Your task to perform on an android device: toggle data saver in the chrome app Image 0: 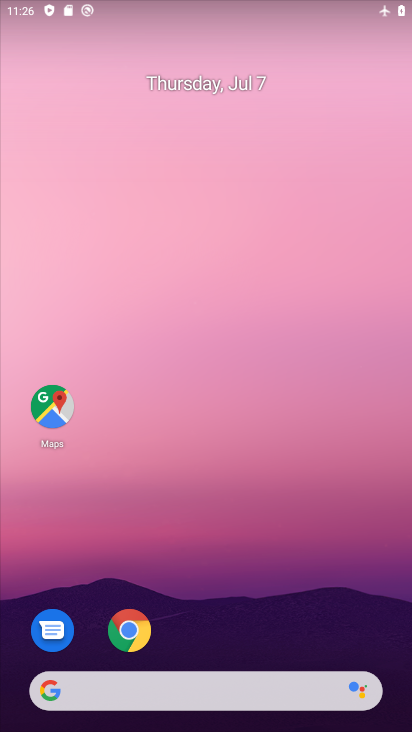
Step 0: drag from (385, 672) to (220, 10)
Your task to perform on an android device: toggle data saver in the chrome app Image 1: 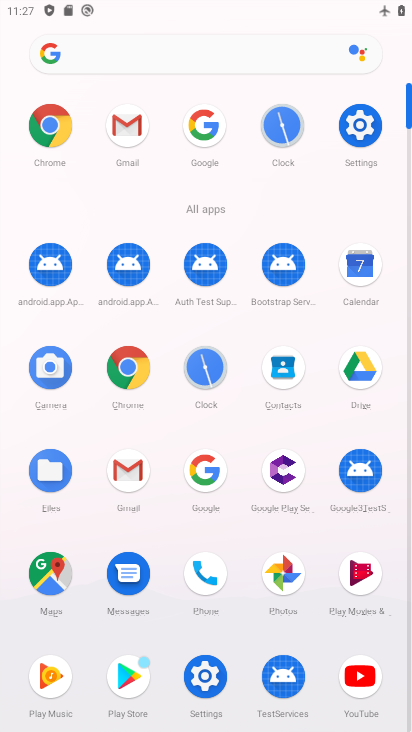
Step 1: click (40, 119)
Your task to perform on an android device: toggle data saver in the chrome app Image 2: 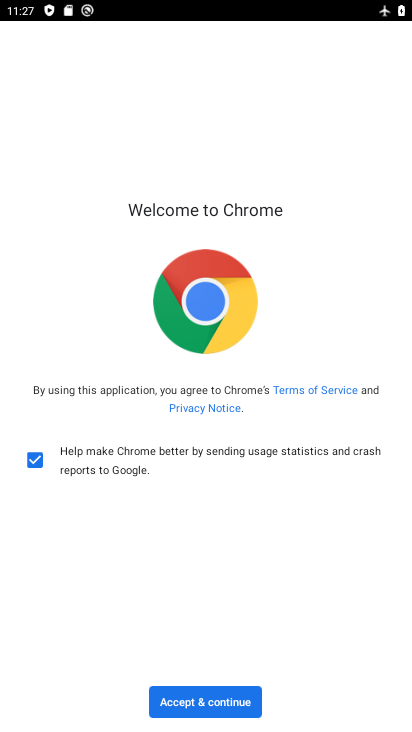
Step 2: click (217, 705)
Your task to perform on an android device: toggle data saver in the chrome app Image 3: 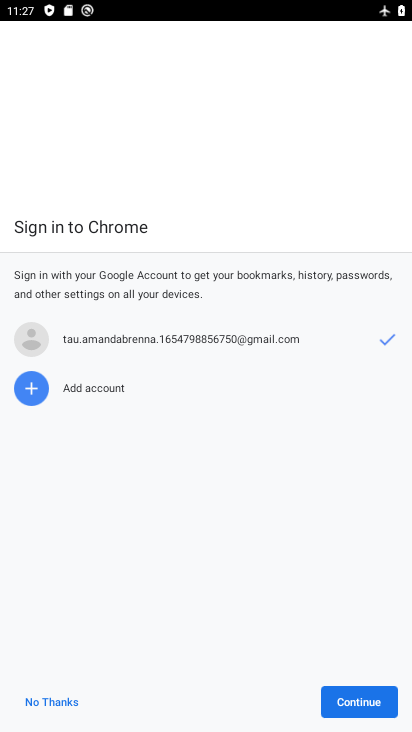
Step 3: click (350, 695)
Your task to perform on an android device: toggle data saver in the chrome app Image 4: 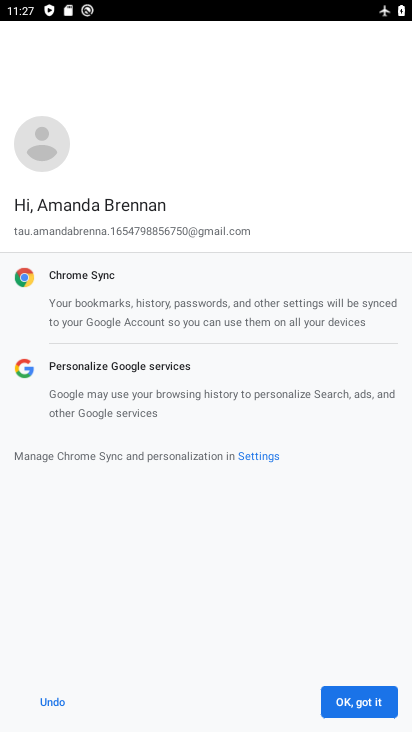
Step 4: click (350, 695)
Your task to perform on an android device: toggle data saver in the chrome app Image 5: 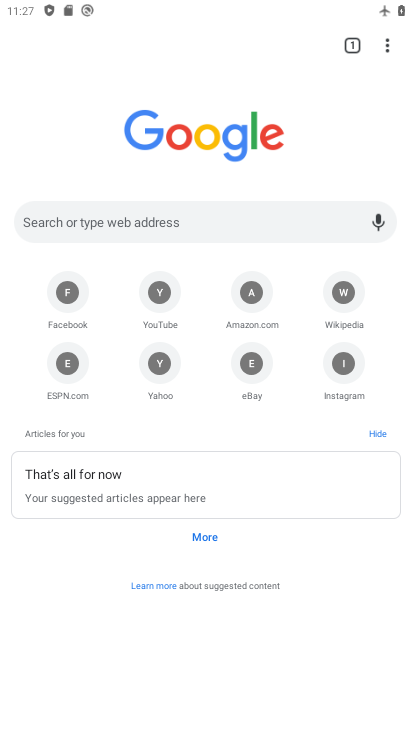
Step 5: click (387, 48)
Your task to perform on an android device: toggle data saver in the chrome app Image 6: 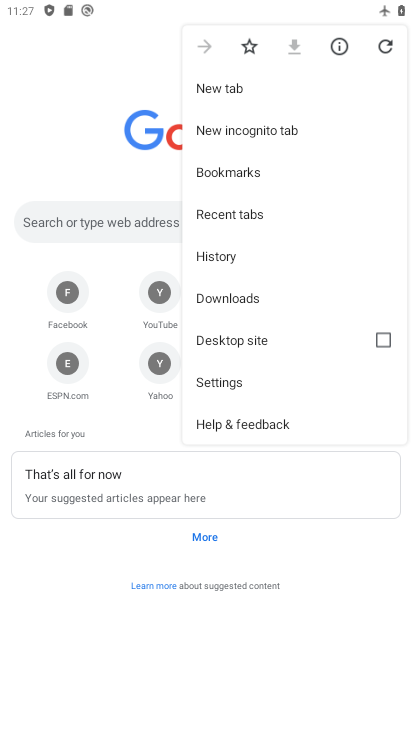
Step 6: click (225, 389)
Your task to perform on an android device: toggle data saver in the chrome app Image 7: 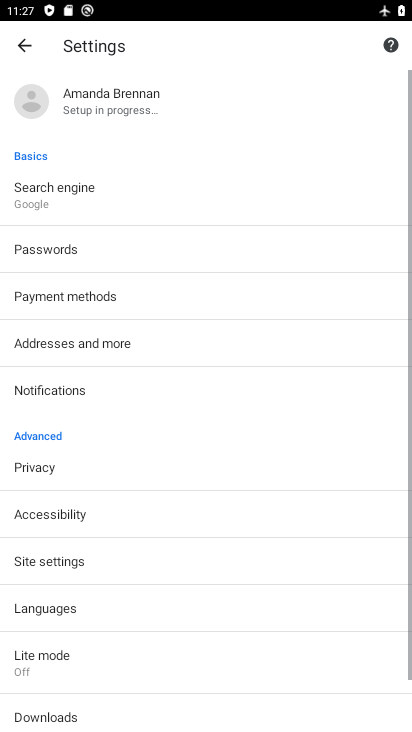
Step 7: click (63, 657)
Your task to perform on an android device: toggle data saver in the chrome app Image 8: 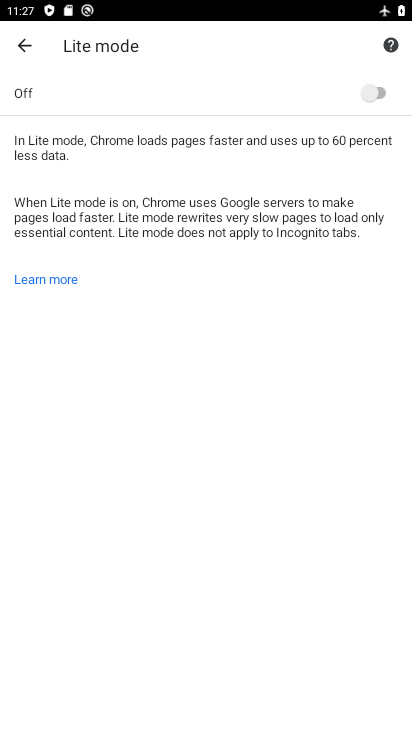
Step 8: click (382, 92)
Your task to perform on an android device: toggle data saver in the chrome app Image 9: 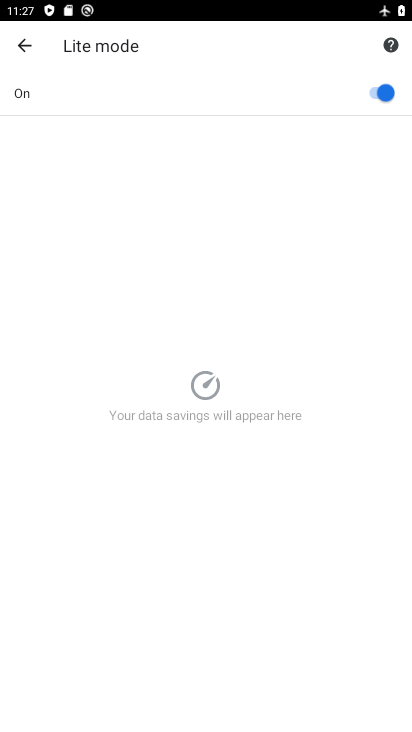
Step 9: task complete